Your task to perform on an android device: Open my contact list Image 0: 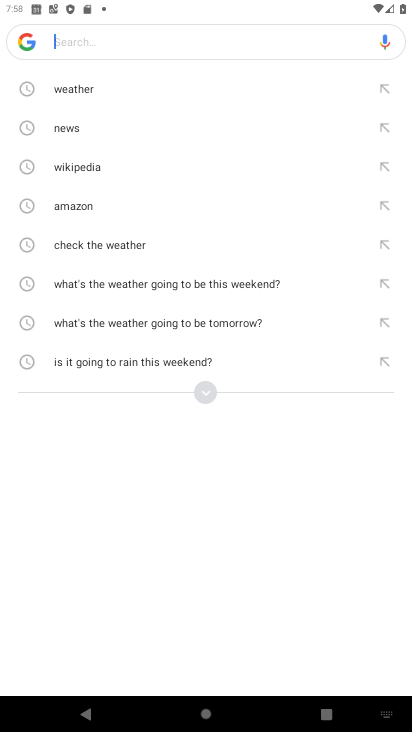
Step 0: press home button
Your task to perform on an android device: Open my contact list Image 1: 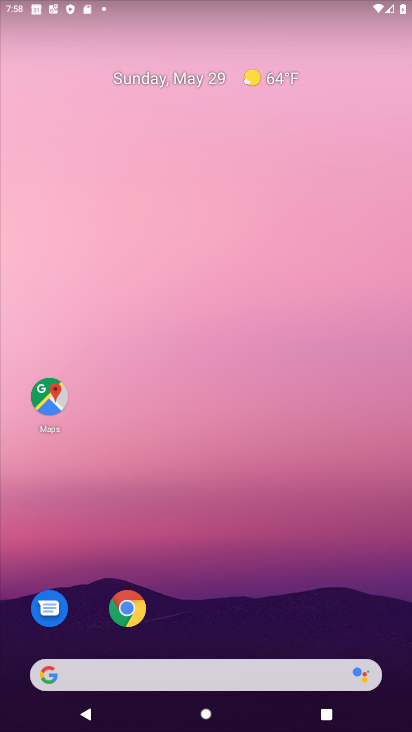
Step 1: drag from (253, 527) to (180, 32)
Your task to perform on an android device: Open my contact list Image 2: 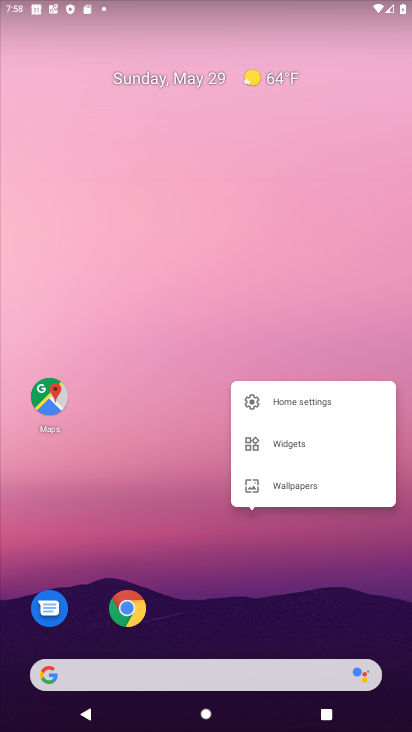
Step 2: click (143, 500)
Your task to perform on an android device: Open my contact list Image 3: 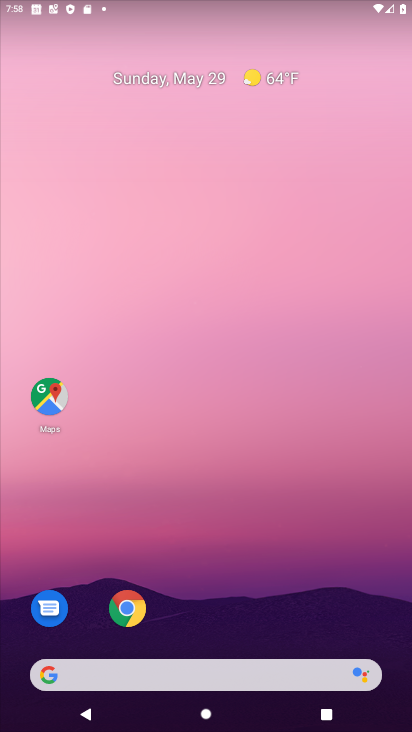
Step 3: drag from (206, 544) to (145, 61)
Your task to perform on an android device: Open my contact list Image 4: 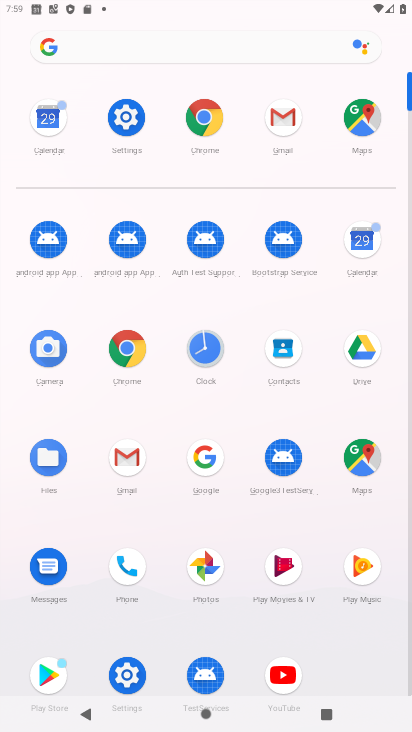
Step 4: click (269, 345)
Your task to perform on an android device: Open my contact list Image 5: 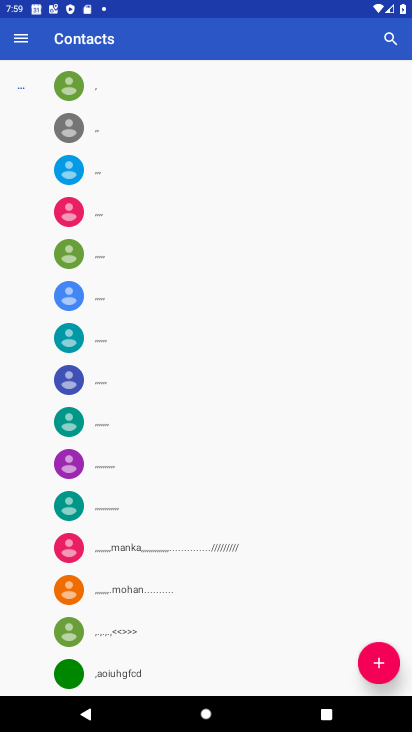
Step 5: task complete